Your task to perform on an android device: turn off translation in the chrome app Image 0: 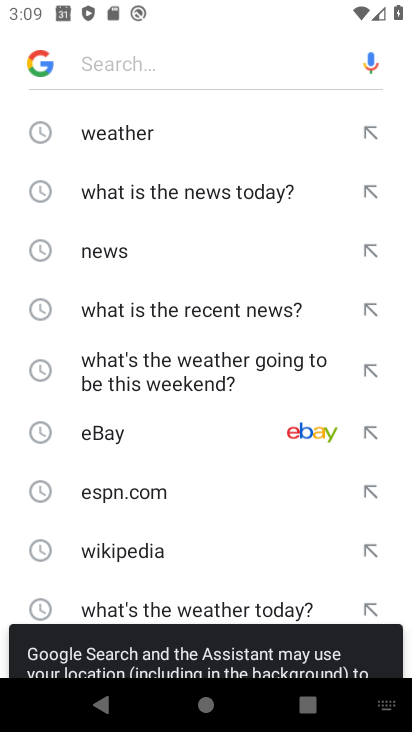
Step 0: press home button
Your task to perform on an android device: turn off translation in the chrome app Image 1: 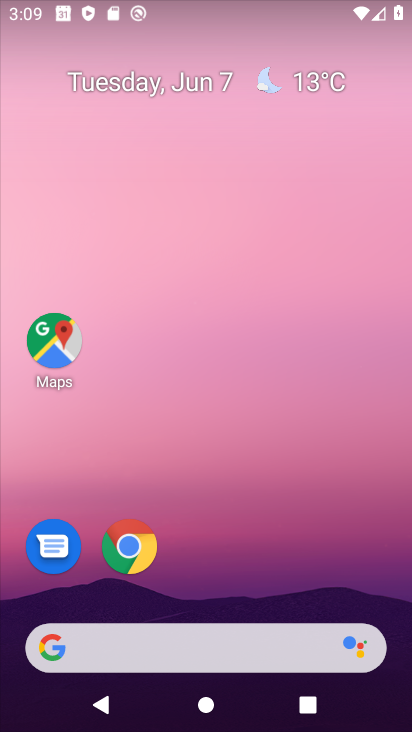
Step 1: drag from (222, 424) to (301, 18)
Your task to perform on an android device: turn off translation in the chrome app Image 2: 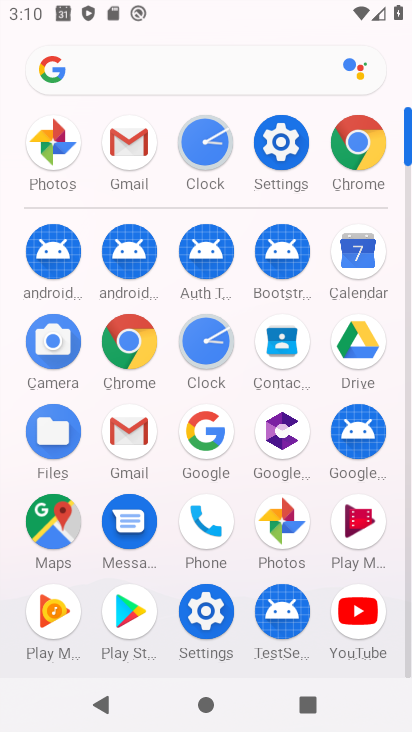
Step 2: click (127, 345)
Your task to perform on an android device: turn off translation in the chrome app Image 3: 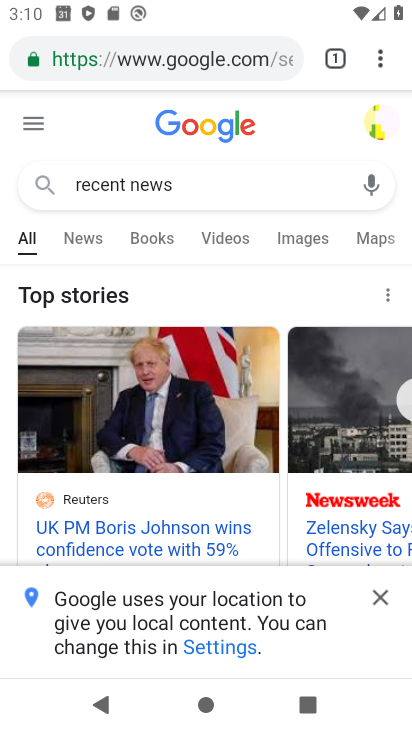
Step 3: click (377, 56)
Your task to perform on an android device: turn off translation in the chrome app Image 4: 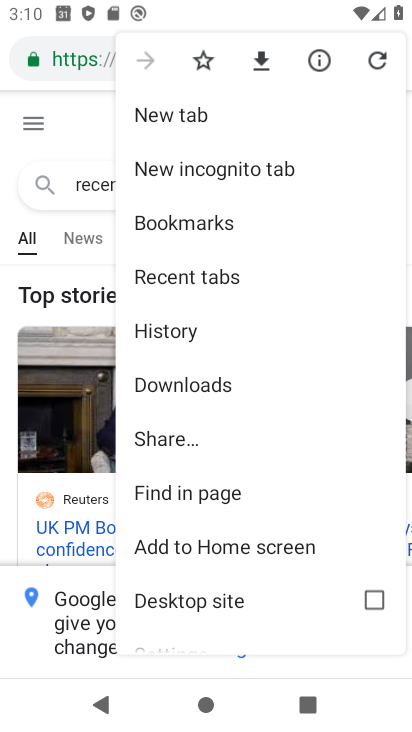
Step 4: drag from (199, 585) to (239, 165)
Your task to perform on an android device: turn off translation in the chrome app Image 5: 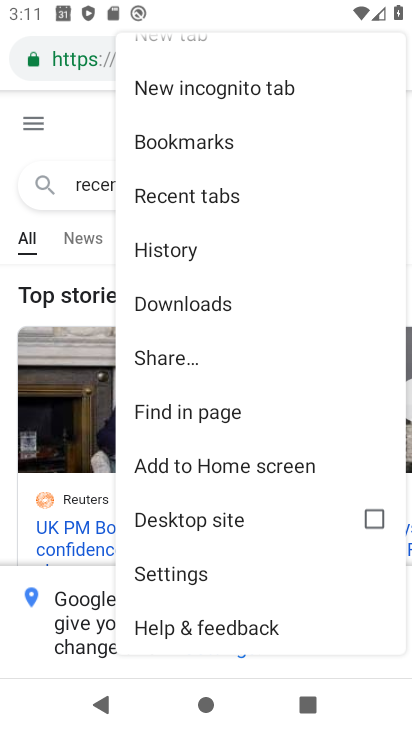
Step 5: click (150, 568)
Your task to perform on an android device: turn off translation in the chrome app Image 6: 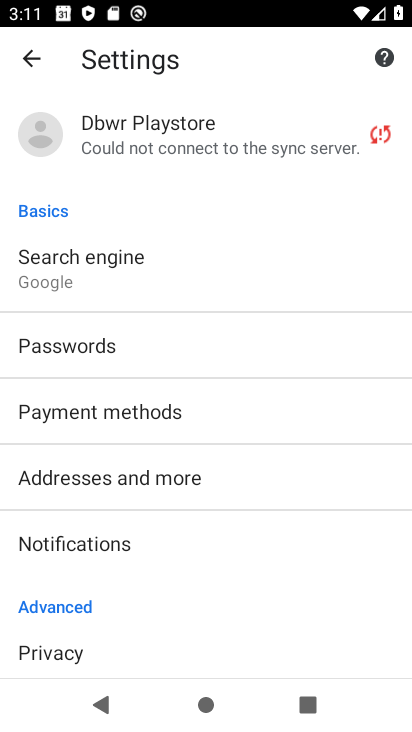
Step 6: drag from (116, 604) to (181, 157)
Your task to perform on an android device: turn off translation in the chrome app Image 7: 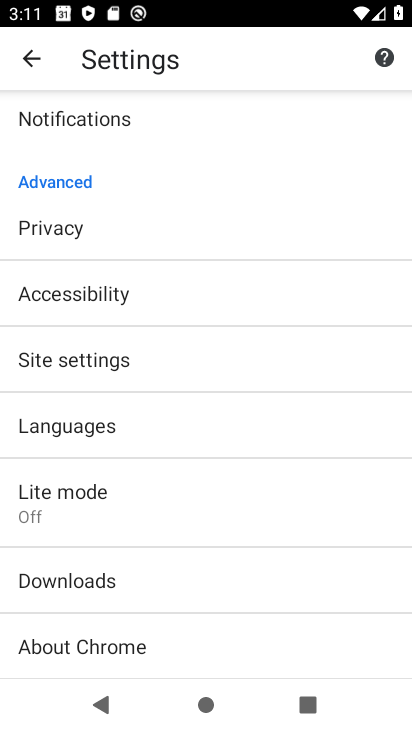
Step 7: click (74, 421)
Your task to perform on an android device: turn off translation in the chrome app Image 8: 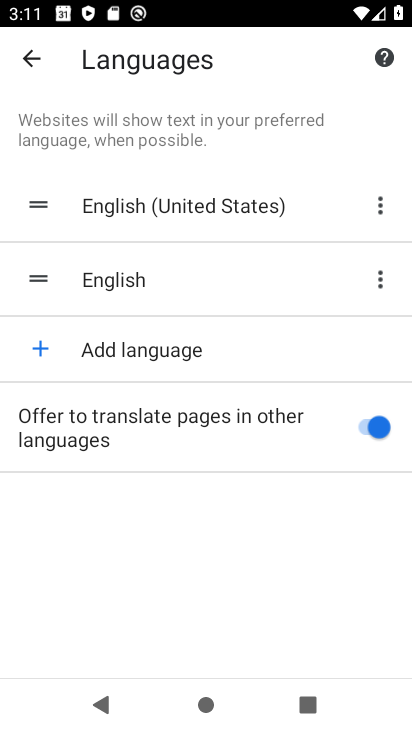
Step 8: click (361, 435)
Your task to perform on an android device: turn off translation in the chrome app Image 9: 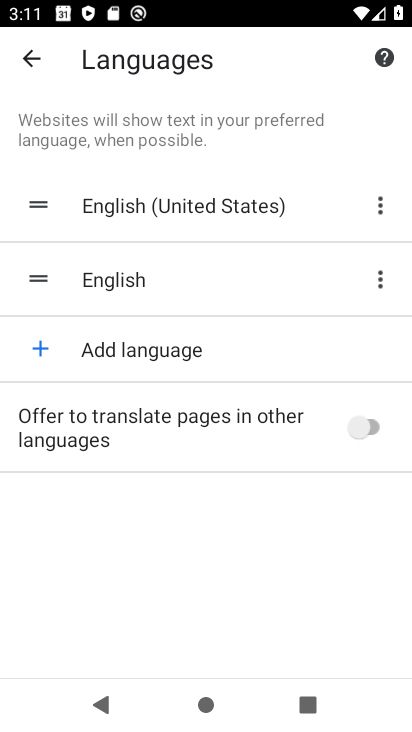
Step 9: task complete